Your task to perform on an android device: Is it going to rain tomorrow? Image 0: 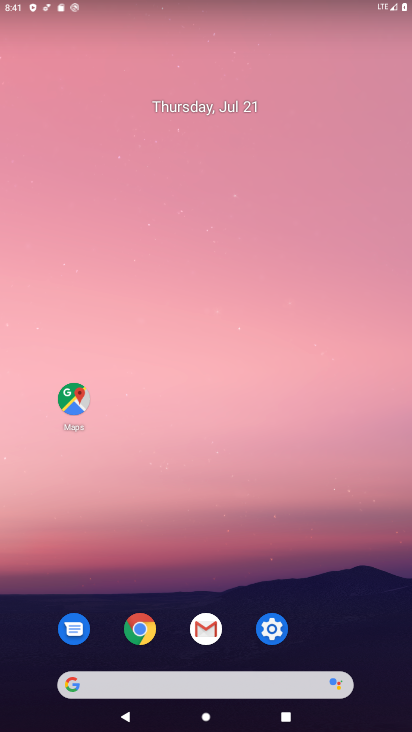
Step 0: click (154, 684)
Your task to perform on an android device: Is it going to rain tomorrow? Image 1: 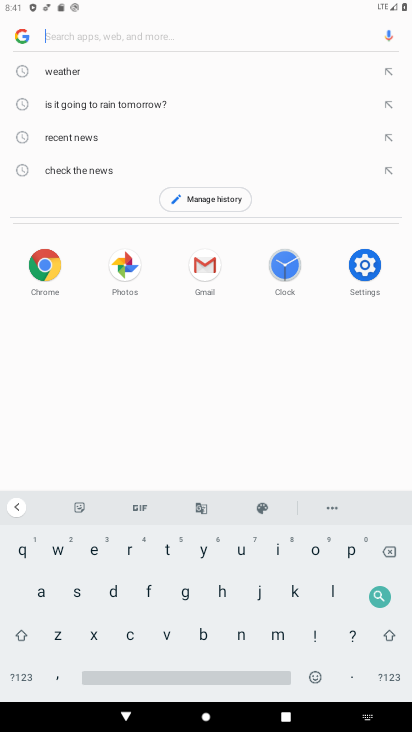
Step 1: click (143, 102)
Your task to perform on an android device: Is it going to rain tomorrow? Image 2: 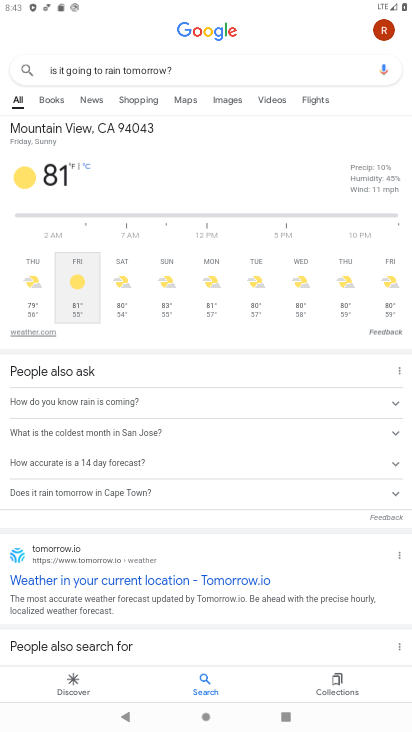
Step 2: task complete